Your task to perform on an android device: Open Android settings Image 0: 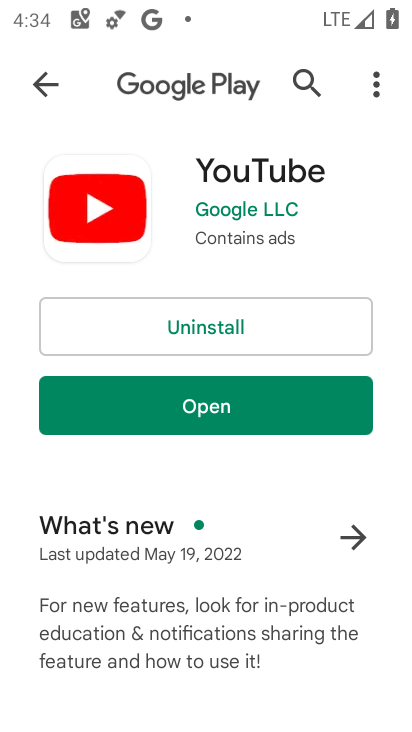
Step 0: press home button
Your task to perform on an android device: Open Android settings Image 1: 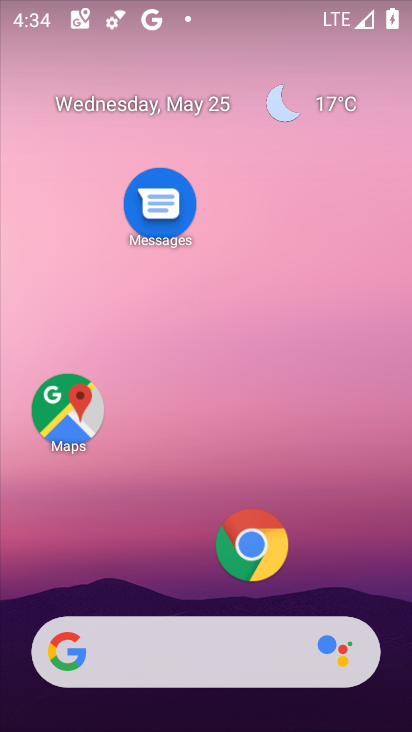
Step 1: drag from (299, 569) to (384, 84)
Your task to perform on an android device: Open Android settings Image 2: 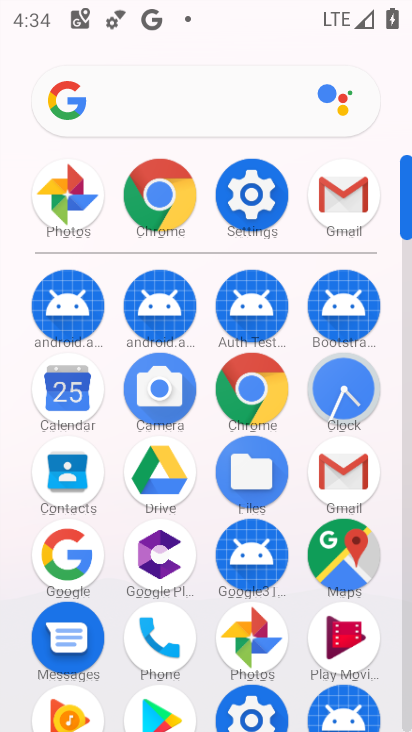
Step 2: click (280, 197)
Your task to perform on an android device: Open Android settings Image 3: 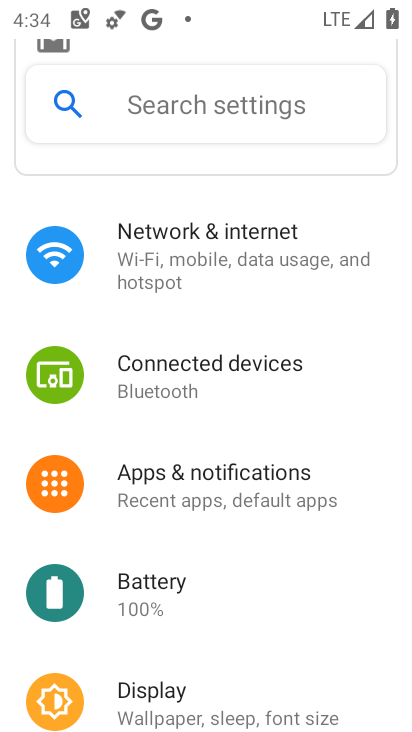
Step 3: drag from (269, 567) to (292, 126)
Your task to perform on an android device: Open Android settings Image 4: 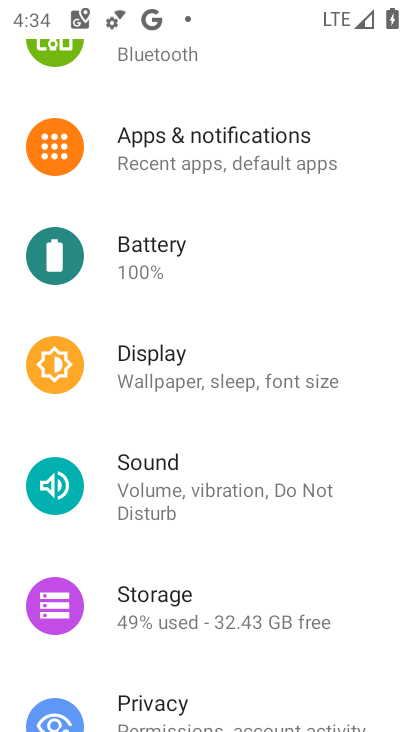
Step 4: drag from (231, 665) to (301, 231)
Your task to perform on an android device: Open Android settings Image 5: 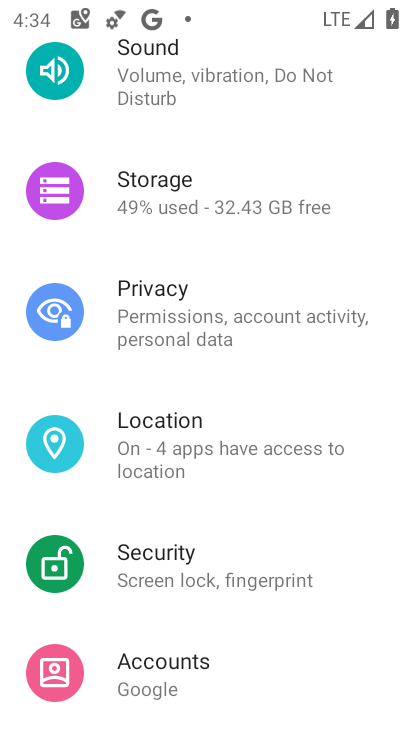
Step 5: drag from (281, 569) to (323, 29)
Your task to perform on an android device: Open Android settings Image 6: 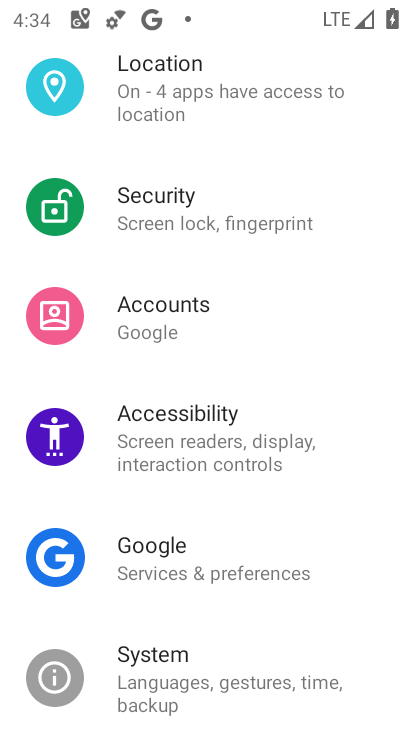
Step 6: drag from (234, 649) to (300, 276)
Your task to perform on an android device: Open Android settings Image 7: 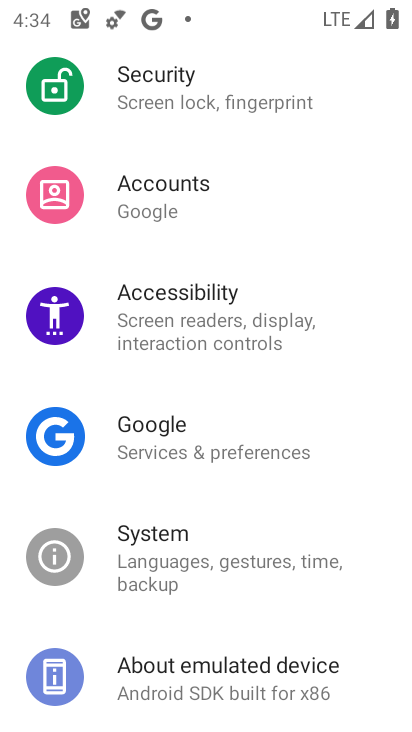
Step 7: click (235, 676)
Your task to perform on an android device: Open Android settings Image 8: 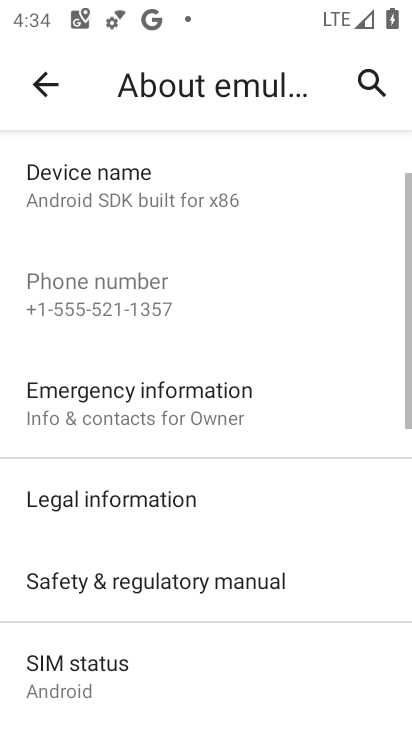
Step 8: drag from (242, 530) to (291, 298)
Your task to perform on an android device: Open Android settings Image 9: 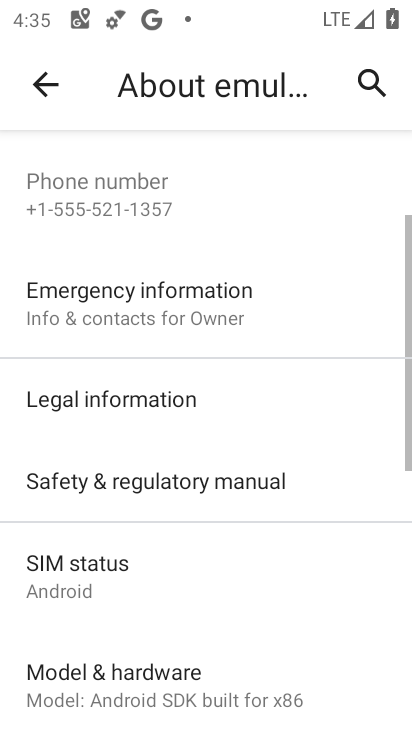
Step 9: drag from (212, 628) to (263, 93)
Your task to perform on an android device: Open Android settings Image 10: 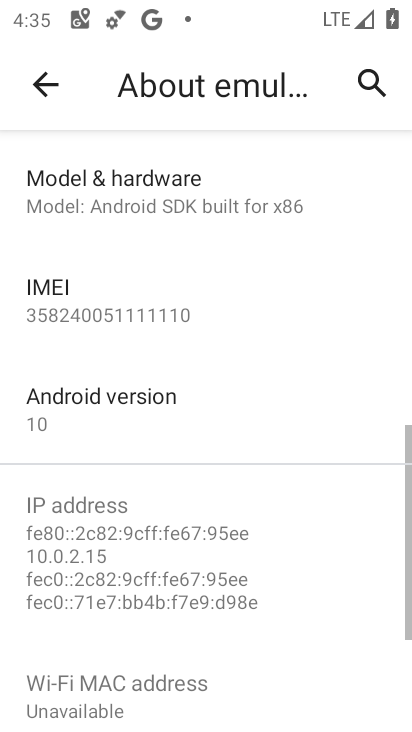
Step 10: click (157, 428)
Your task to perform on an android device: Open Android settings Image 11: 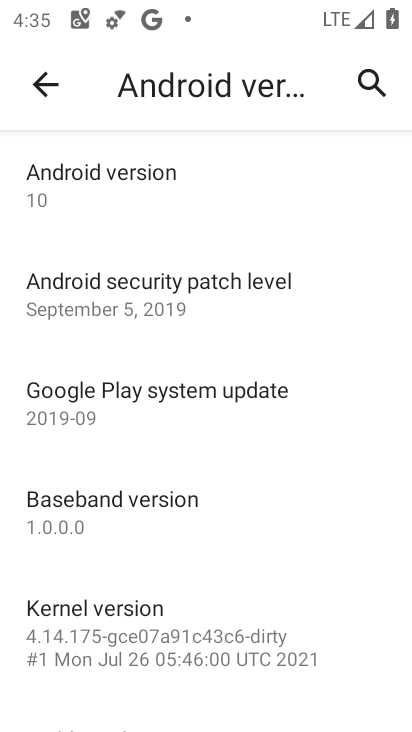
Step 11: task complete